Your task to perform on an android device: stop showing notifications on the lock screen Image 0: 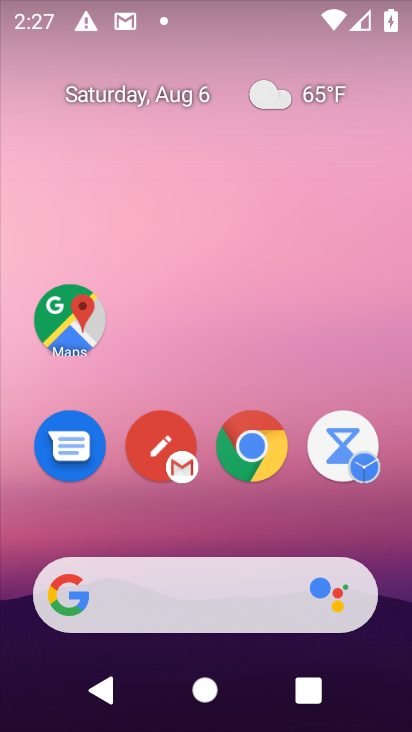
Step 0: drag from (227, 241) to (189, 133)
Your task to perform on an android device: stop showing notifications on the lock screen Image 1: 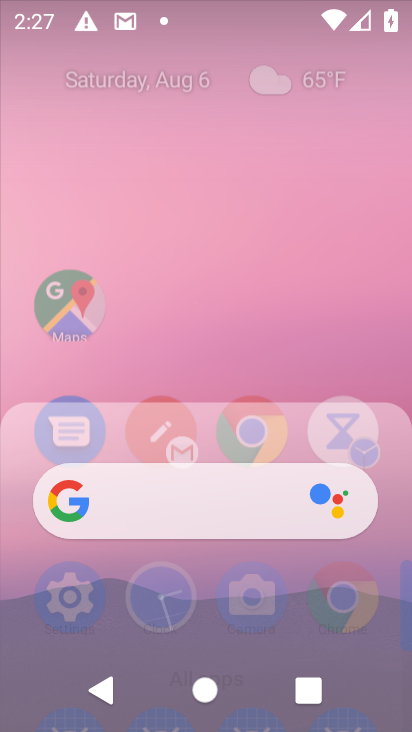
Step 1: drag from (200, 432) to (171, 95)
Your task to perform on an android device: stop showing notifications on the lock screen Image 2: 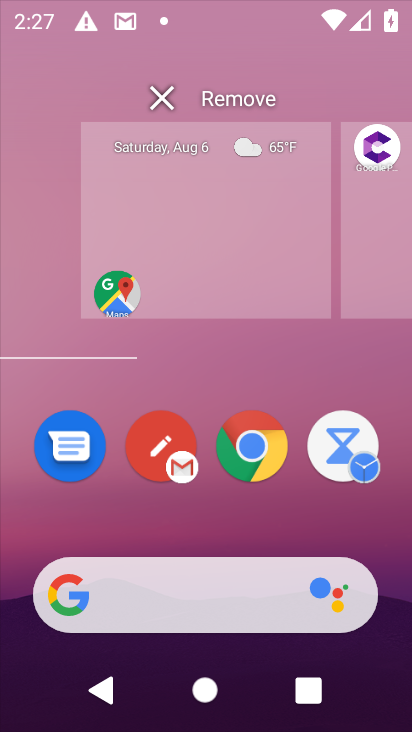
Step 2: drag from (184, 457) to (143, 135)
Your task to perform on an android device: stop showing notifications on the lock screen Image 3: 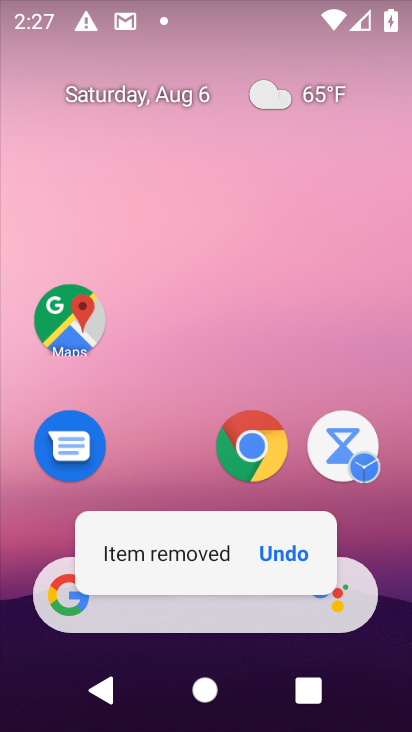
Step 3: drag from (183, 476) to (197, 153)
Your task to perform on an android device: stop showing notifications on the lock screen Image 4: 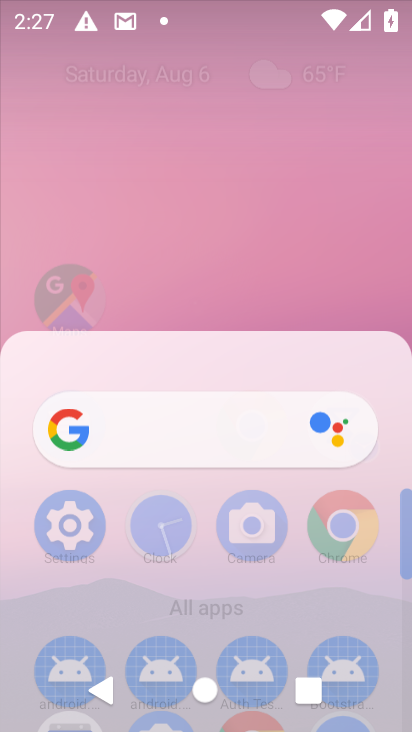
Step 4: drag from (221, 445) to (231, 218)
Your task to perform on an android device: stop showing notifications on the lock screen Image 5: 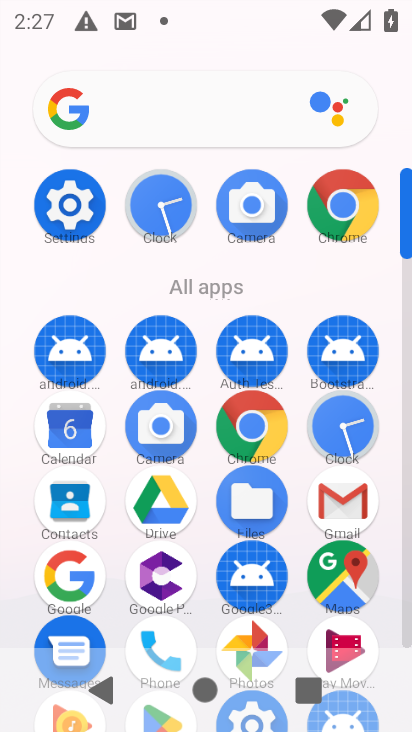
Step 5: click (77, 212)
Your task to perform on an android device: stop showing notifications on the lock screen Image 6: 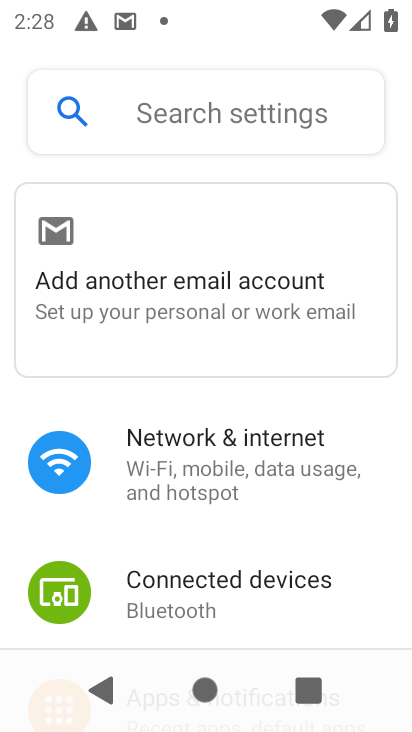
Step 6: drag from (217, 527) to (164, 200)
Your task to perform on an android device: stop showing notifications on the lock screen Image 7: 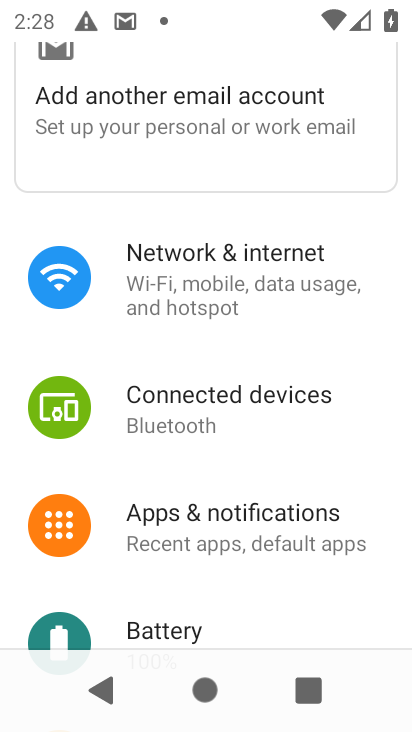
Step 7: drag from (190, 490) to (176, 181)
Your task to perform on an android device: stop showing notifications on the lock screen Image 8: 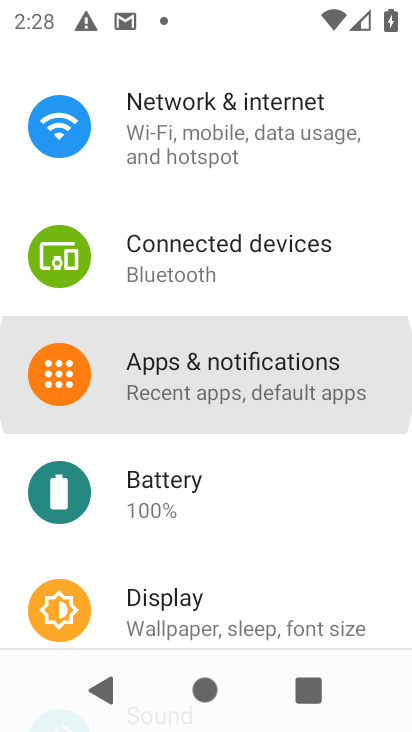
Step 8: drag from (214, 460) to (198, 167)
Your task to perform on an android device: stop showing notifications on the lock screen Image 9: 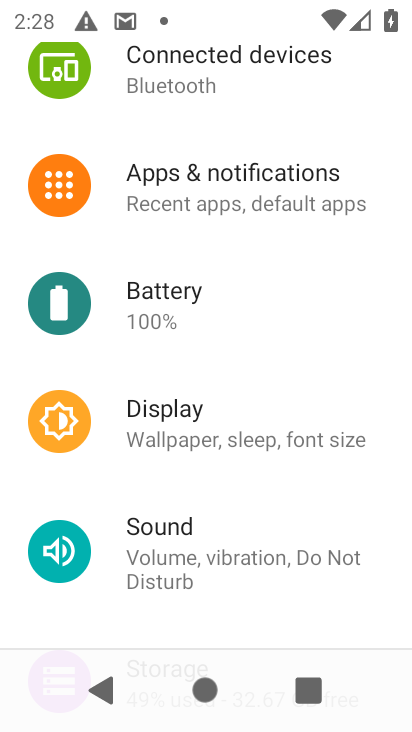
Step 9: drag from (195, 177) to (208, 218)
Your task to perform on an android device: stop showing notifications on the lock screen Image 10: 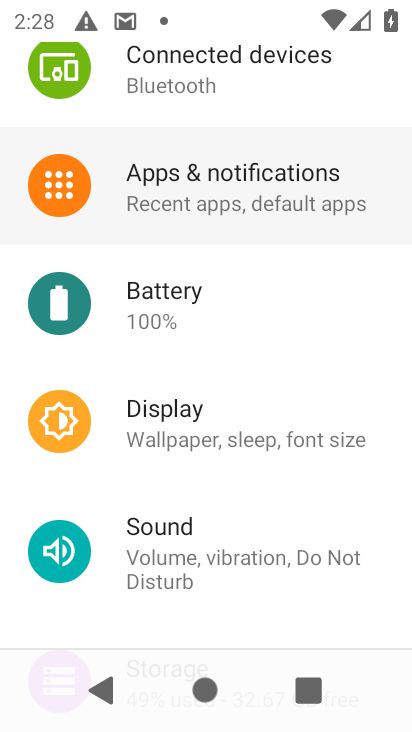
Step 10: click (210, 221)
Your task to perform on an android device: stop showing notifications on the lock screen Image 11: 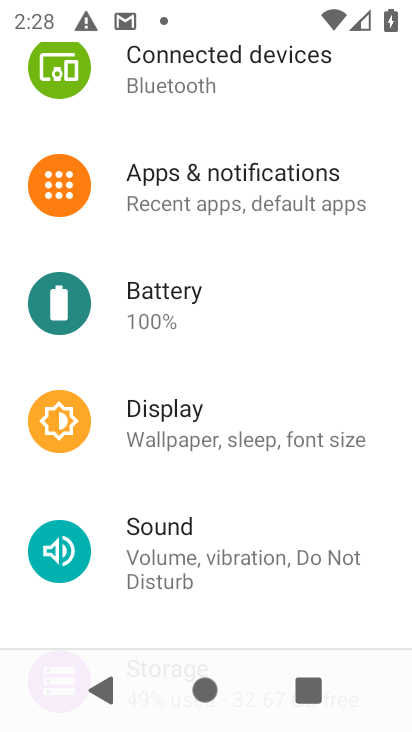
Step 11: click (211, 222)
Your task to perform on an android device: stop showing notifications on the lock screen Image 12: 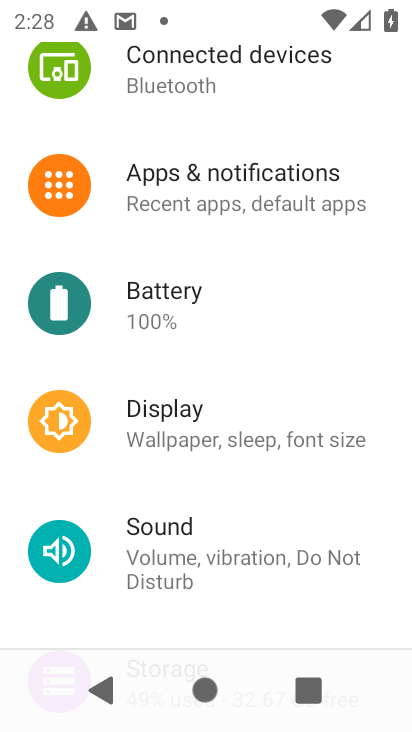
Step 12: click (217, 202)
Your task to perform on an android device: stop showing notifications on the lock screen Image 13: 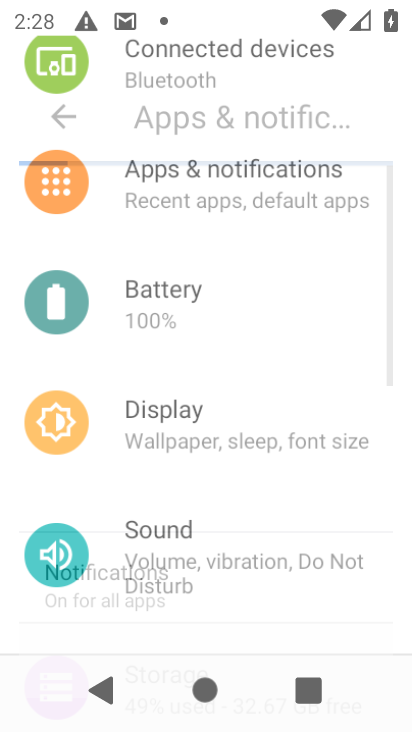
Step 13: click (227, 196)
Your task to perform on an android device: stop showing notifications on the lock screen Image 14: 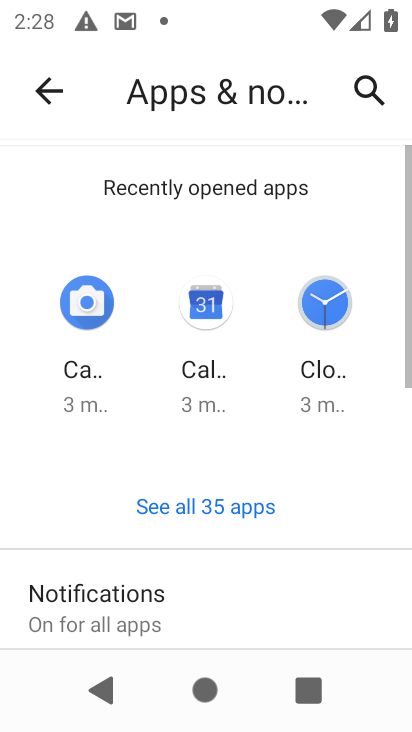
Step 14: drag from (165, 579) to (138, 600)
Your task to perform on an android device: stop showing notifications on the lock screen Image 15: 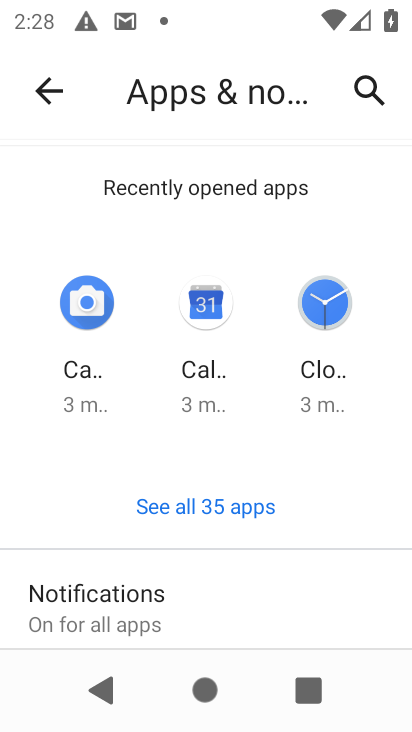
Step 15: click (129, 608)
Your task to perform on an android device: stop showing notifications on the lock screen Image 16: 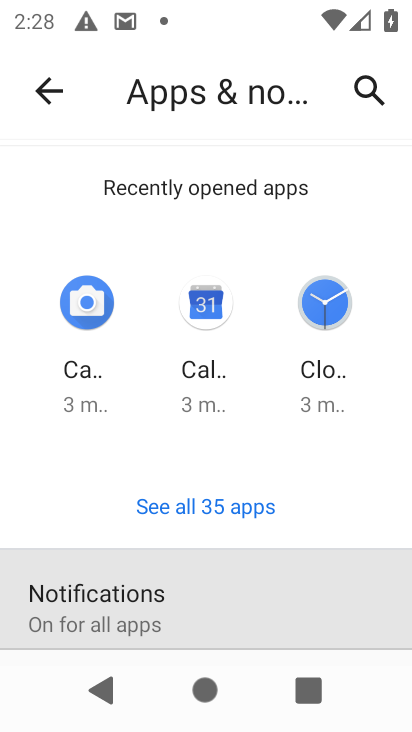
Step 16: click (128, 607)
Your task to perform on an android device: stop showing notifications on the lock screen Image 17: 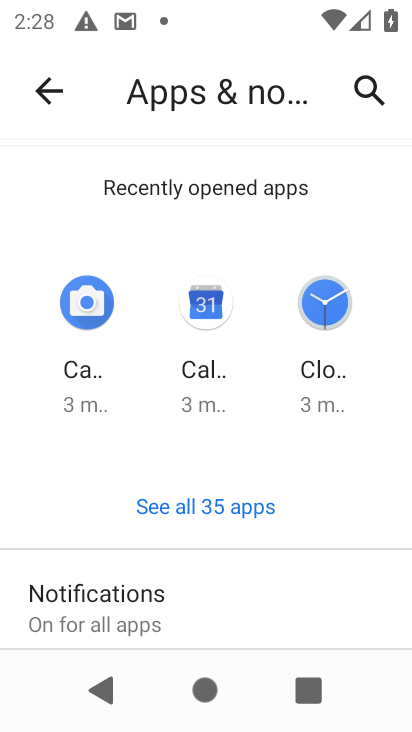
Step 17: click (130, 611)
Your task to perform on an android device: stop showing notifications on the lock screen Image 18: 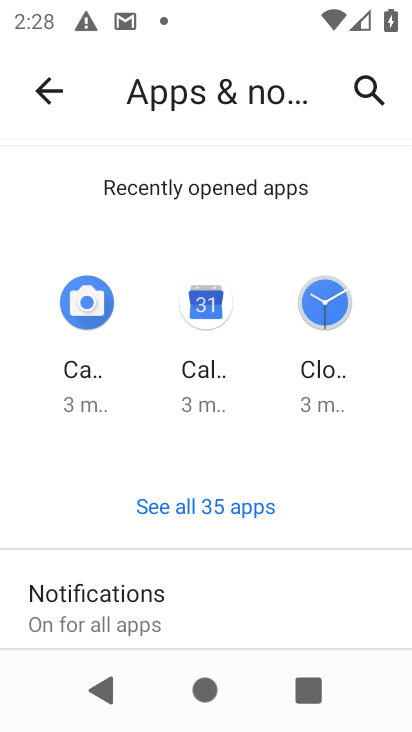
Step 18: click (131, 612)
Your task to perform on an android device: stop showing notifications on the lock screen Image 19: 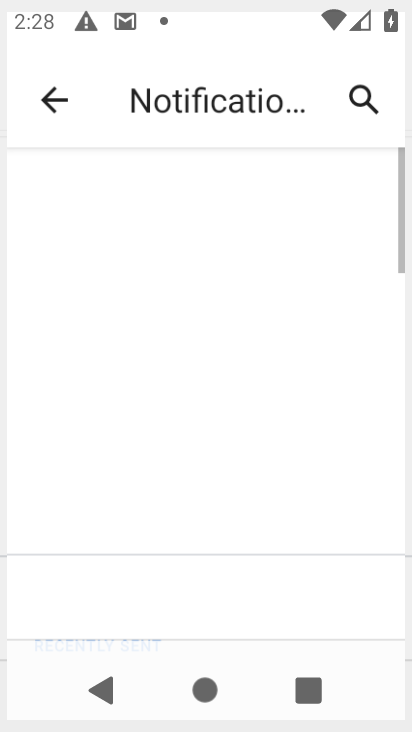
Step 19: click (136, 623)
Your task to perform on an android device: stop showing notifications on the lock screen Image 20: 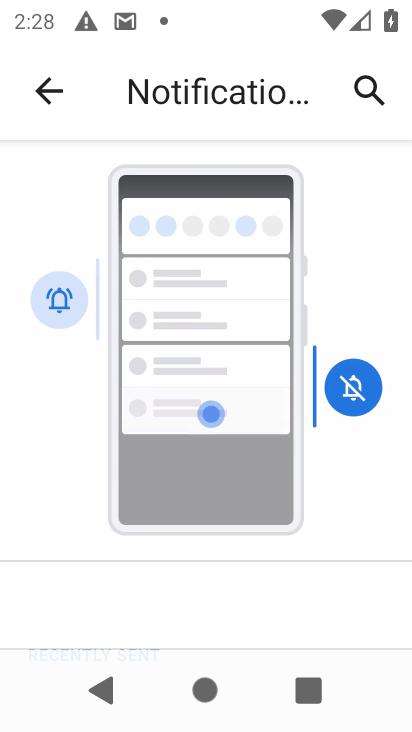
Step 20: drag from (256, 442) to (207, 96)
Your task to perform on an android device: stop showing notifications on the lock screen Image 21: 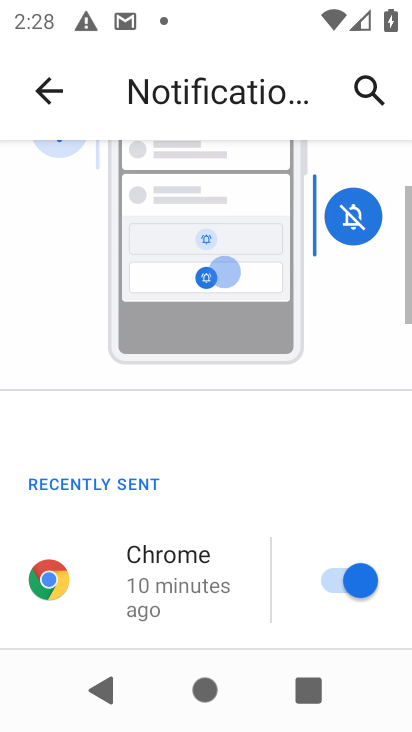
Step 21: drag from (210, 129) to (213, 252)
Your task to perform on an android device: stop showing notifications on the lock screen Image 22: 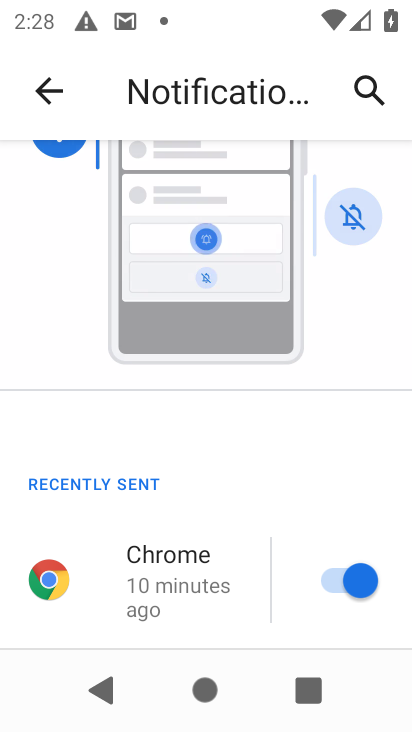
Step 22: drag from (228, 407) to (195, 236)
Your task to perform on an android device: stop showing notifications on the lock screen Image 23: 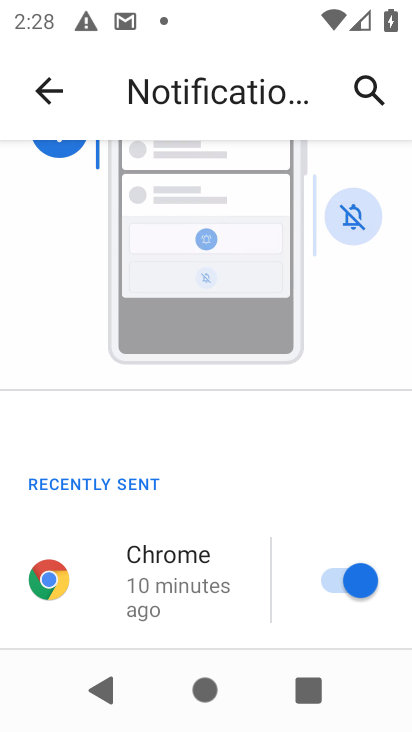
Step 23: drag from (222, 415) to (188, 215)
Your task to perform on an android device: stop showing notifications on the lock screen Image 24: 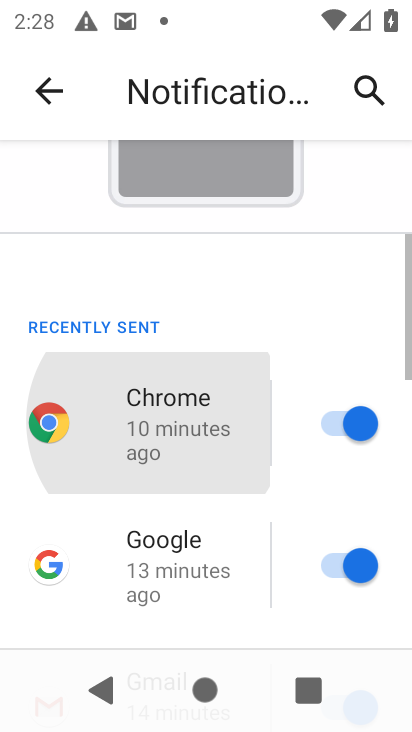
Step 24: drag from (214, 365) to (187, 140)
Your task to perform on an android device: stop showing notifications on the lock screen Image 25: 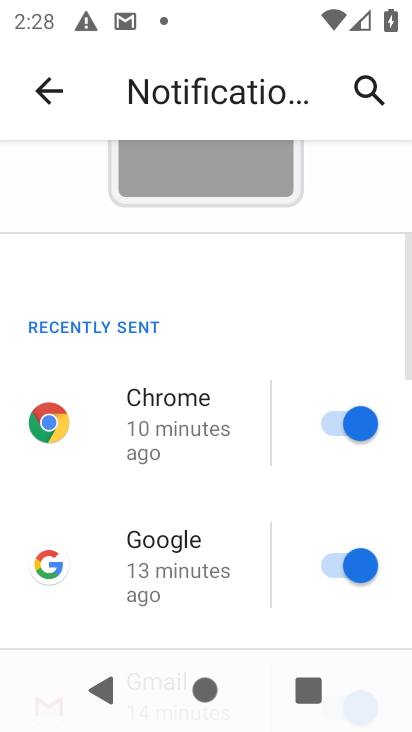
Step 25: drag from (247, 442) to (215, 200)
Your task to perform on an android device: stop showing notifications on the lock screen Image 26: 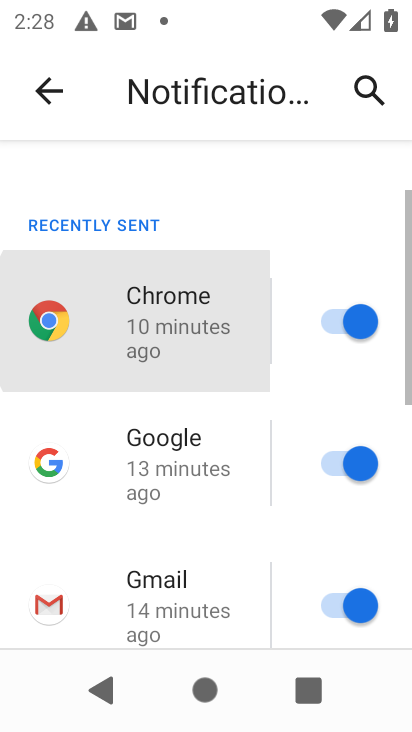
Step 26: drag from (196, 278) to (185, 199)
Your task to perform on an android device: stop showing notifications on the lock screen Image 27: 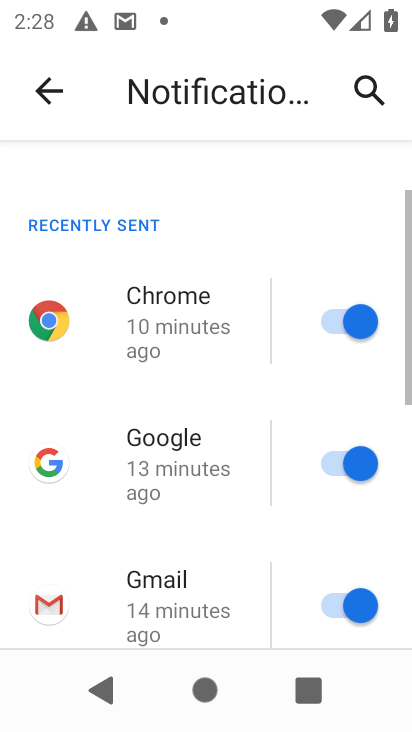
Step 27: drag from (183, 508) to (141, 210)
Your task to perform on an android device: stop showing notifications on the lock screen Image 28: 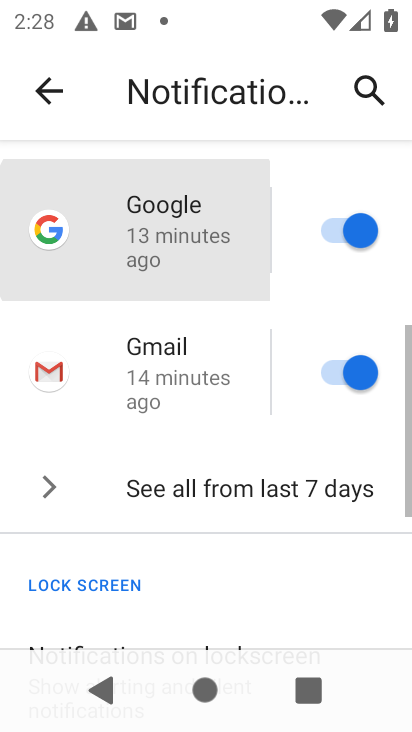
Step 28: drag from (214, 486) to (186, 122)
Your task to perform on an android device: stop showing notifications on the lock screen Image 29: 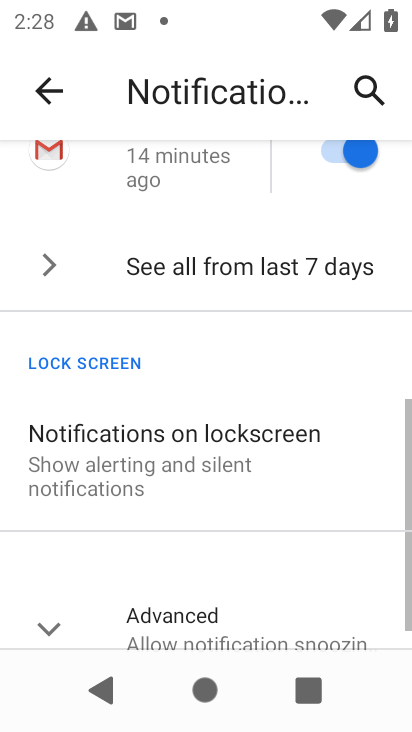
Step 29: drag from (208, 524) to (248, 234)
Your task to perform on an android device: stop showing notifications on the lock screen Image 30: 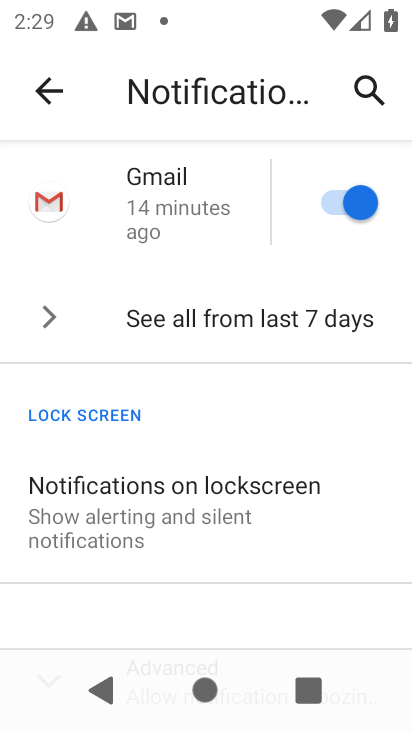
Step 30: click (142, 519)
Your task to perform on an android device: stop showing notifications on the lock screen Image 31: 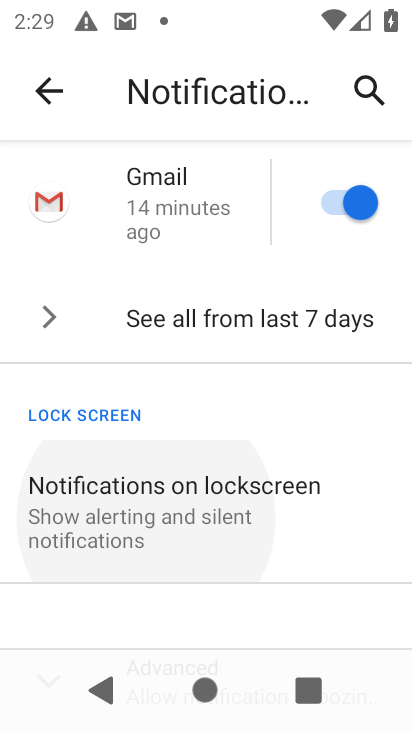
Step 31: click (145, 514)
Your task to perform on an android device: stop showing notifications on the lock screen Image 32: 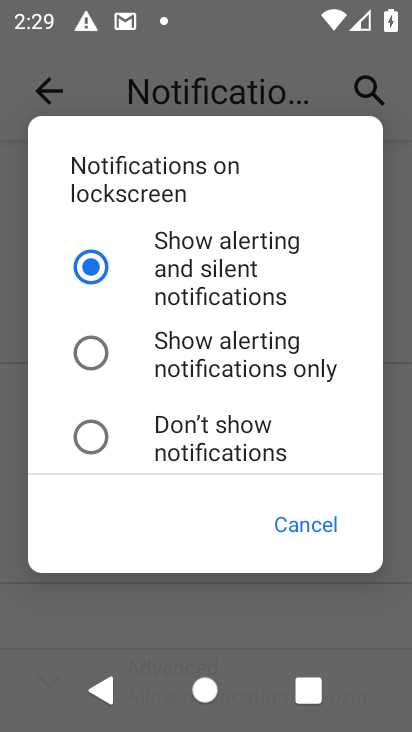
Step 32: click (89, 355)
Your task to perform on an android device: stop showing notifications on the lock screen Image 33: 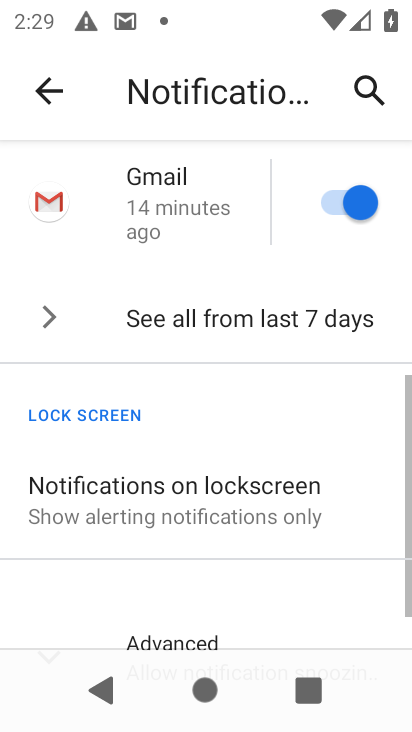
Step 33: task complete